Your task to perform on an android device: Open calendar and show me the third week of next month Image 0: 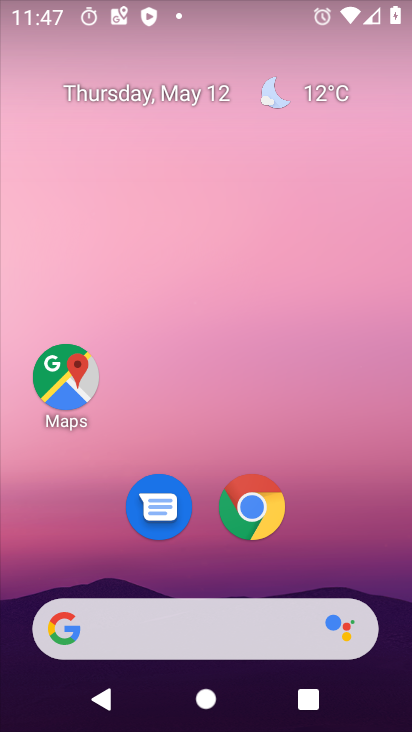
Step 0: drag from (226, 562) to (267, 0)
Your task to perform on an android device: Open calendar and show me the third week of next month Image 1: 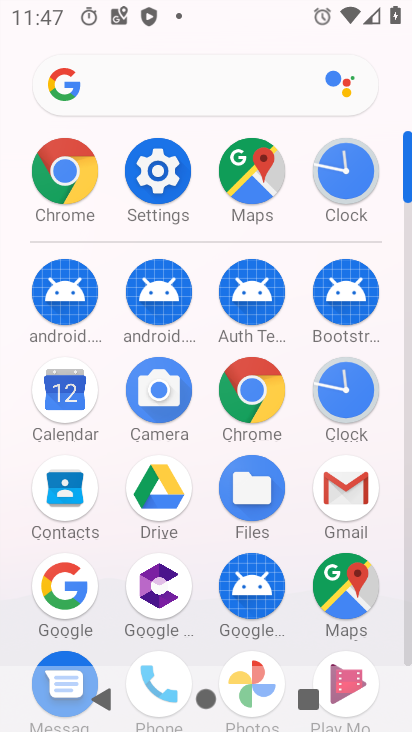
Step 1: click (59, 387)
Your task to perform on an android device: Open calendar and show me the third week of next month Image 2: 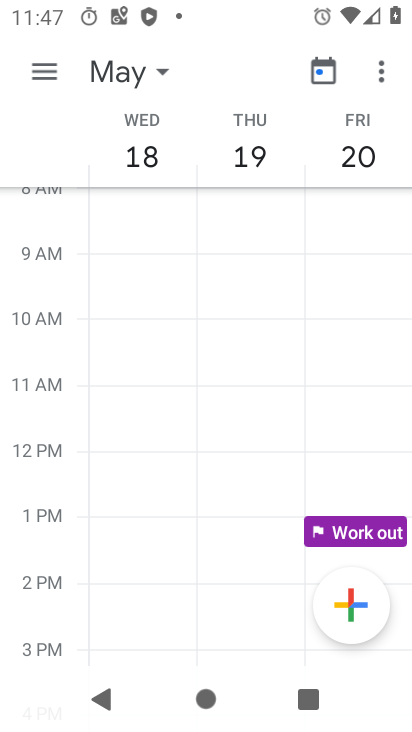
Step 2: click (35, 67)
Your task to perform on an android device: Open calendar and show me the third week of next month Image 3: 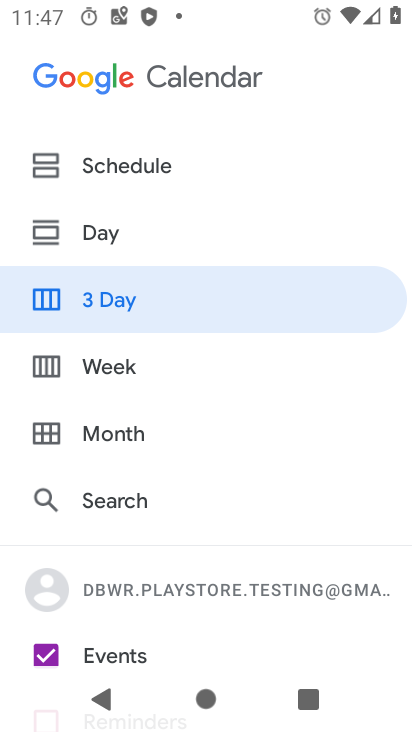
Step 3: click (130, 360)
Your task to perform on an android device: Open calendar and show me the third week of next month Image 4: 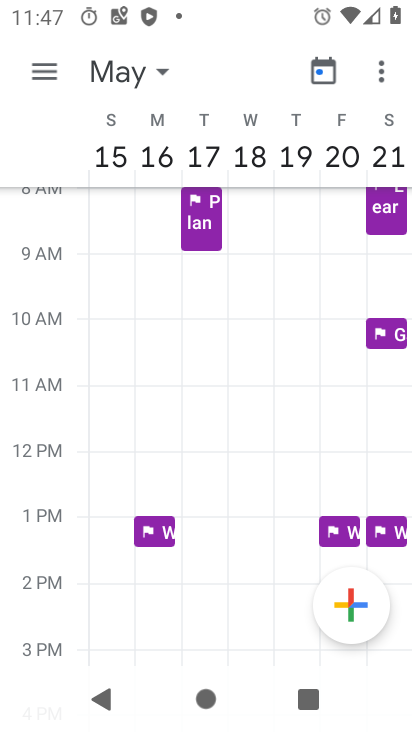
Step 4: task complete